Your task to perform on an android device: toggle notification dots Image 0: 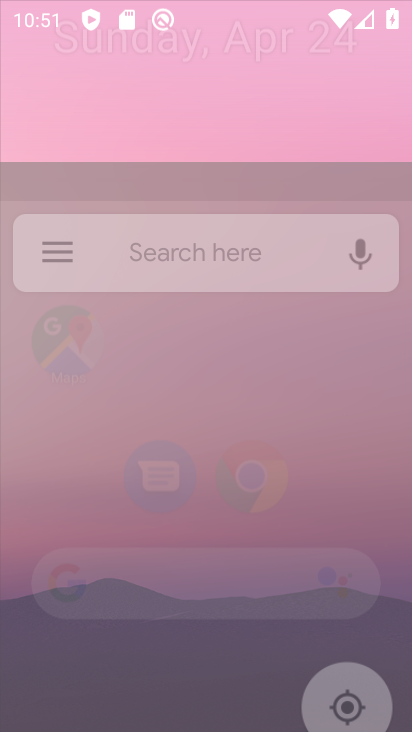
Step 0: drag from (286, 699) to (337, 406)
Your task to perform on an android device: toggle notification dots Image 1: 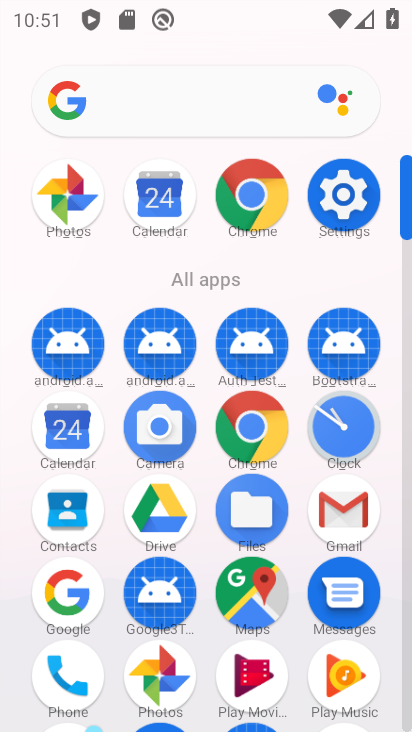
Step 1: click (348, 188)
Your task to perform on an android device: toggle notification dots Image 2: 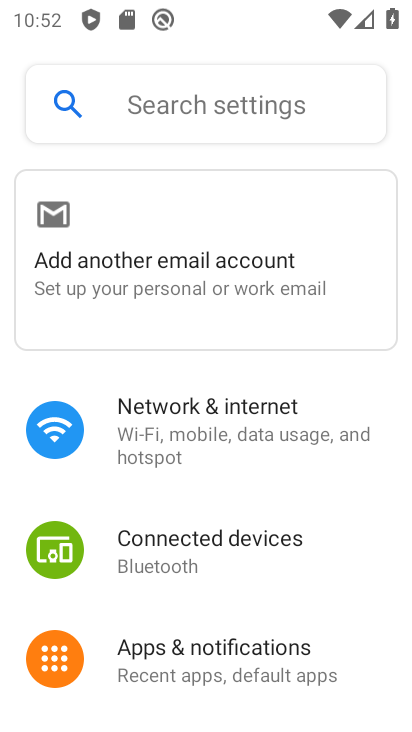
Step 2: click (180, 121)
Your task to perform on an android device: toggle notification dots Image 3: 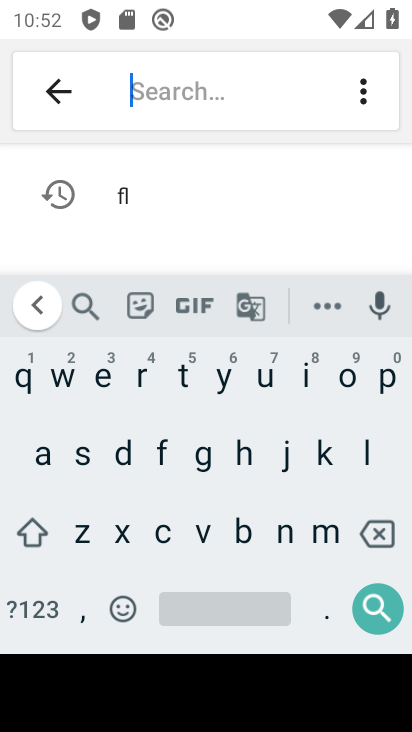
Step 3: click (129, 453)
Your task to perform on an android device: toggle notification dots Image 4: 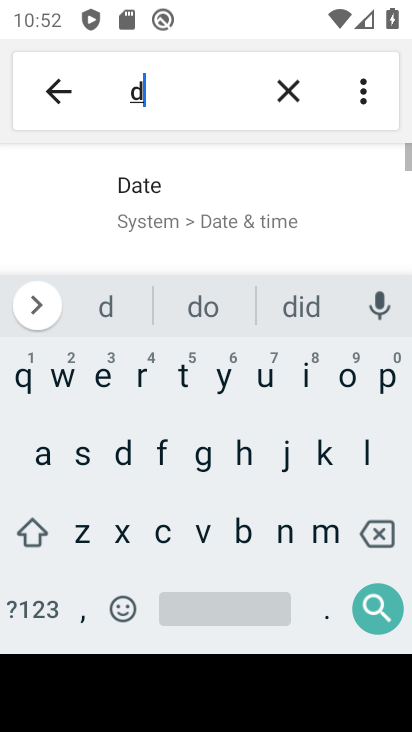
Step 4: click (341, 381)
Your task to perform on an android device: toggle notification dots Image 5: 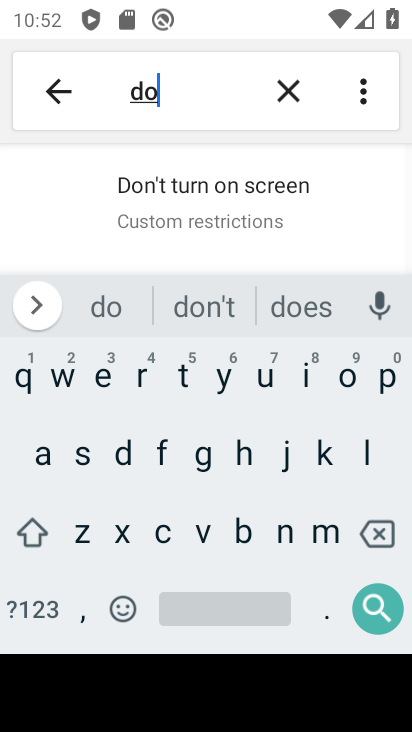
Step 5: click (187, 381)
Your task to perform on an android device: toggle notification dots Image 6: 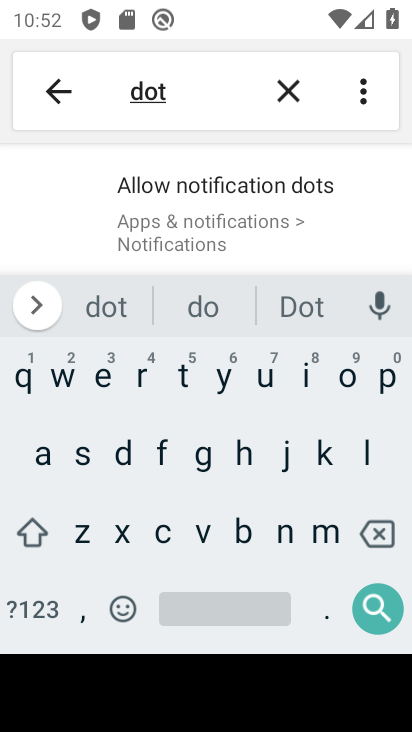
Step 6: click (215, 223)
Your task to perform on an android device: toggle notification dots Image 7: 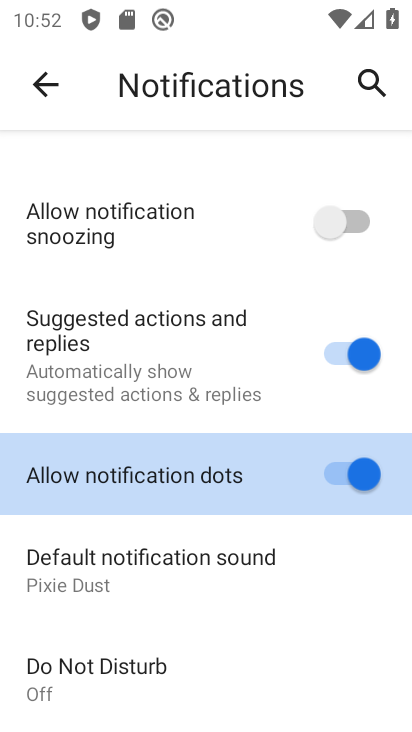
Step 7: click (206, 491)
Your task to perform on an android device: toggle notification dots Image 8: 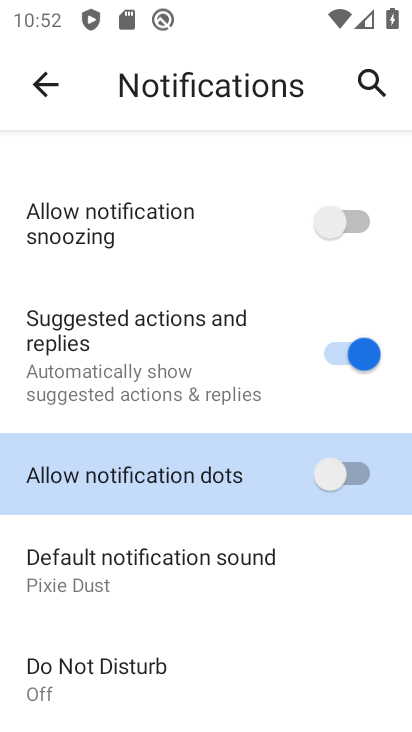
Step 8: task complete